Your task to perform on an android device: Check the news Image 0: 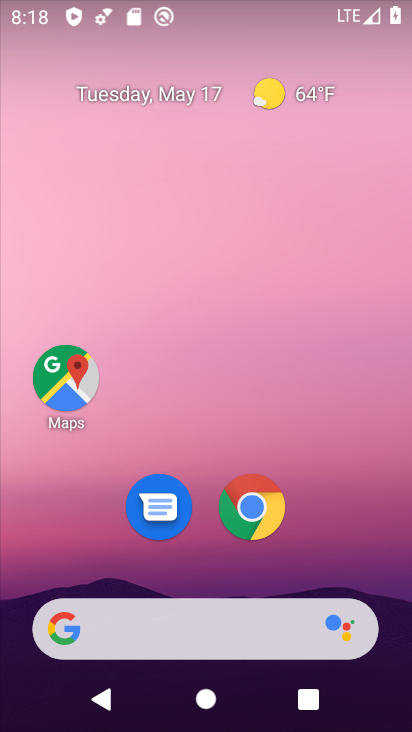
Step 0: drag from (338, 574) to (243, 94)
Your task to perform on an android device: Check the news Image 1: 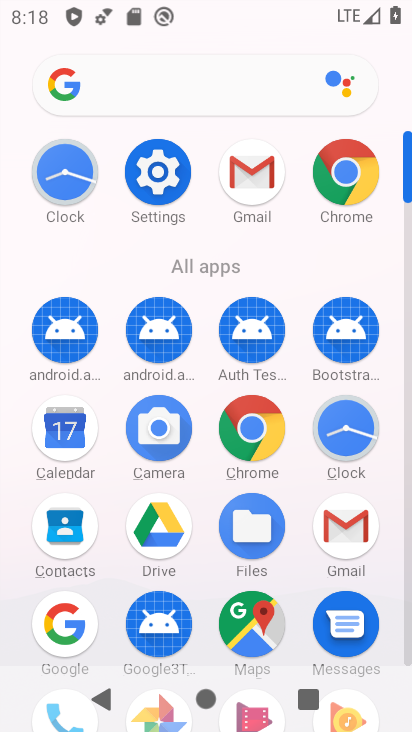
Step 1: click (61, 626)
Your task to perform on an android device: Check the news Image 2: 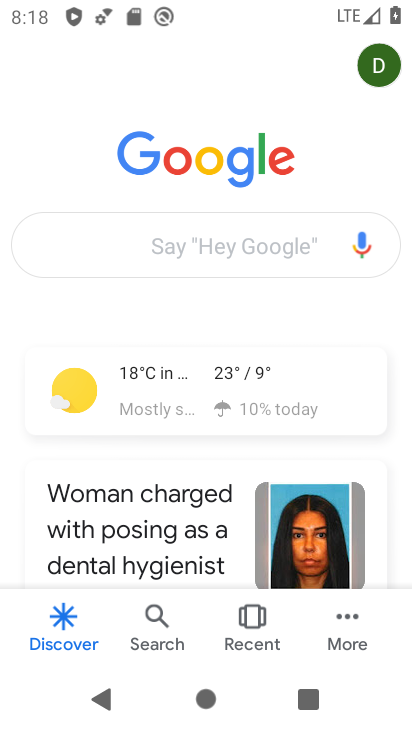
Step 2: click (181, 239)
Your task to perform on an android device: Check the news Image 3: 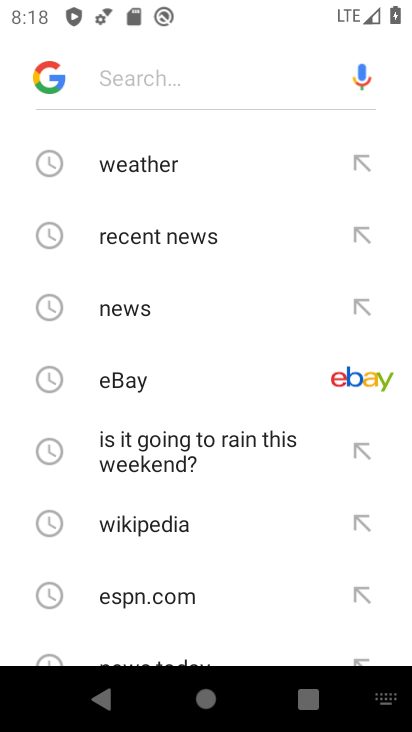
Step 3: click (142, 311)
Your task to perform on an android device: Check the news Image 4: 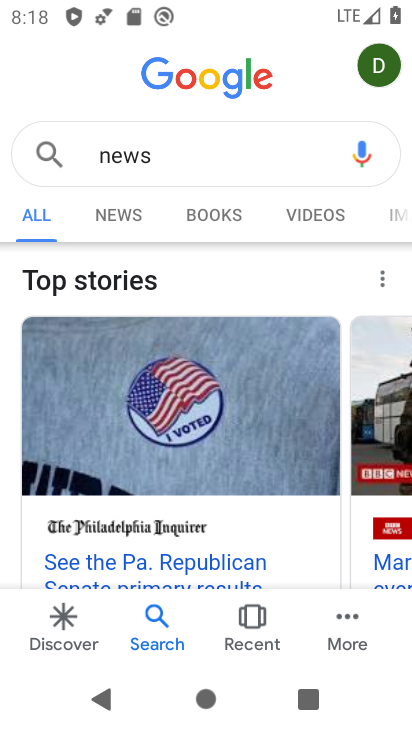
Step 4: task complete